Your task to perform on an android device: open app "Lyft - Rideshare, Bikes, Scooters & Transit" (install if not already installed) Image 0: 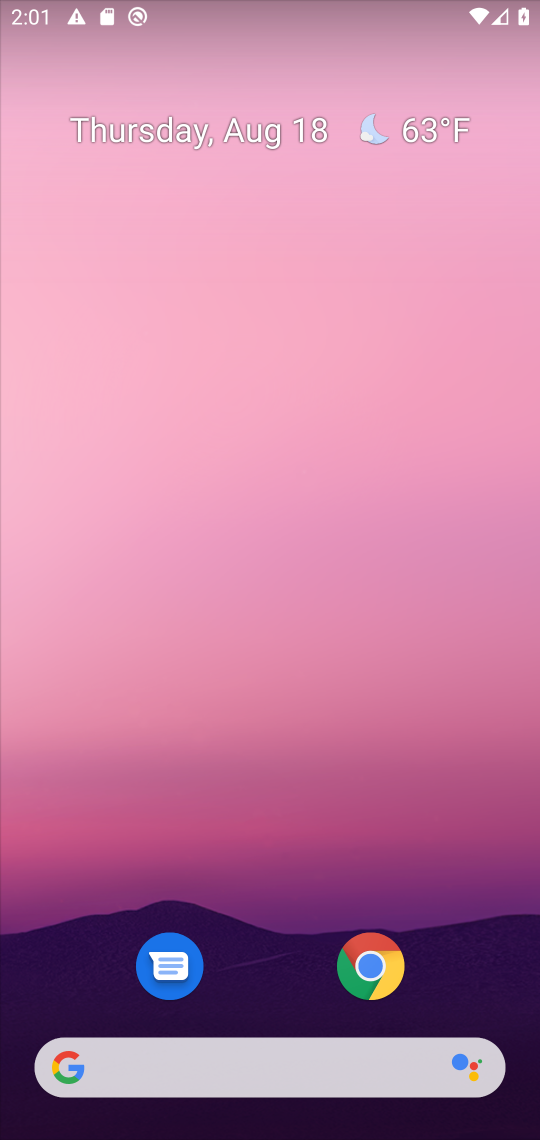
Step 0: press home button
Your task to perform on an android device: open app "Lyft - Rideshare, Bikes, Scooters & Transit" (install if not already installed) Image 1: 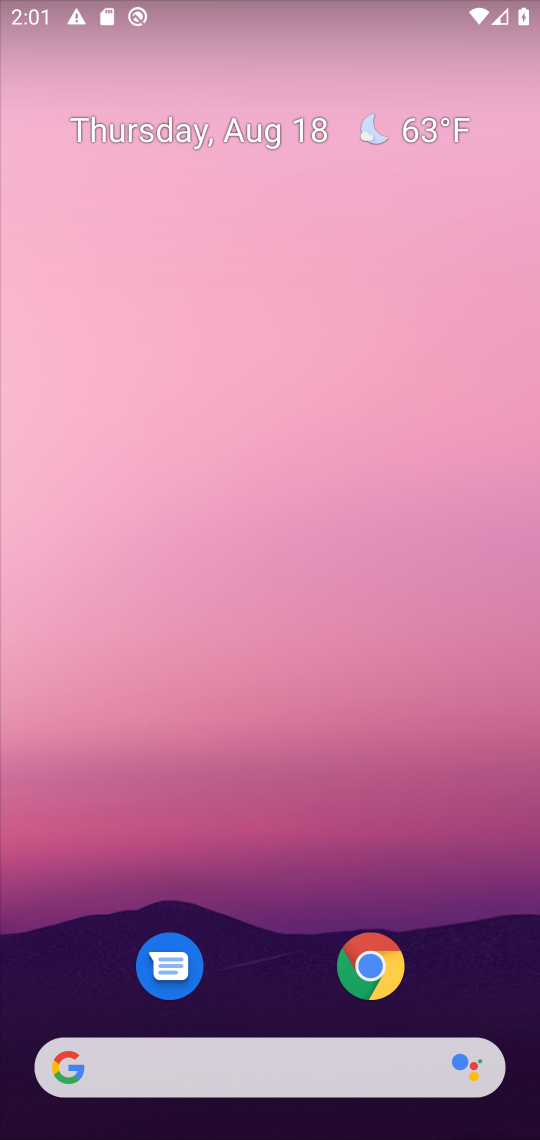
Step 1: drag from (276, 1011) to (281, 312)
Your task to perform on an android device: open app "Lyft - Rideshare, Bikes, Scooters & Transit" (install if not already installed) Image 2: 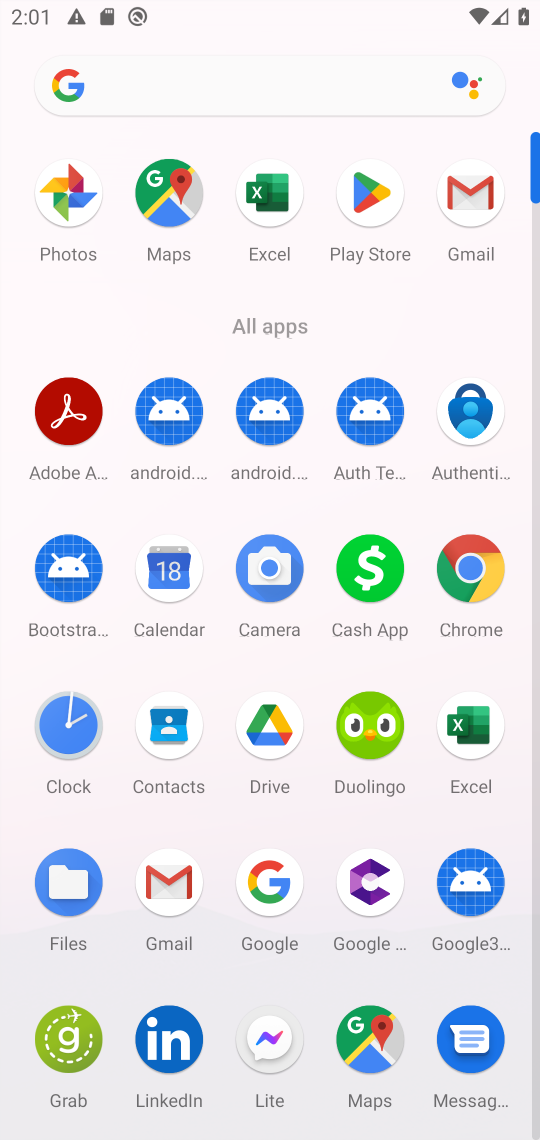
Step 2: click (371, 175)
Your task to perform on an android device: open app "Lyft - Rideshare, Bikes, Scooters & Transit" (install if not already installed) Image 3: 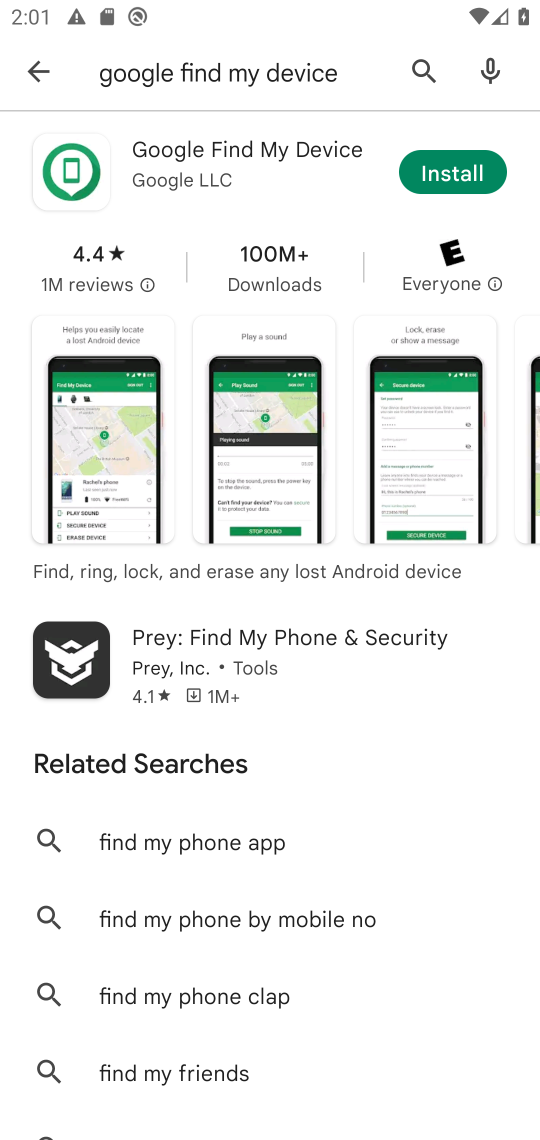
Step 3: click (419, 63)
Your task to perform on an android device: open app "Lyft - Rideshare, Bikes, Scooters & Transit" (install if not already installed) Image 4: 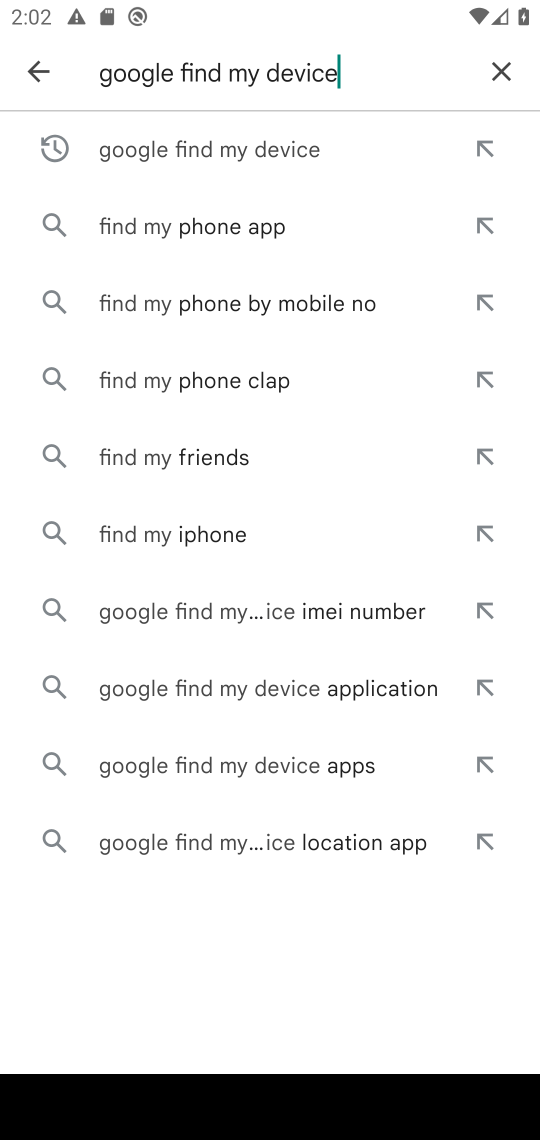
Step 4: click (510, 74)
Your task to perform on an android device: open app "Lyft - Rideshare, Bikes, Scooters & Transit" (install if not already installed) Image 5: 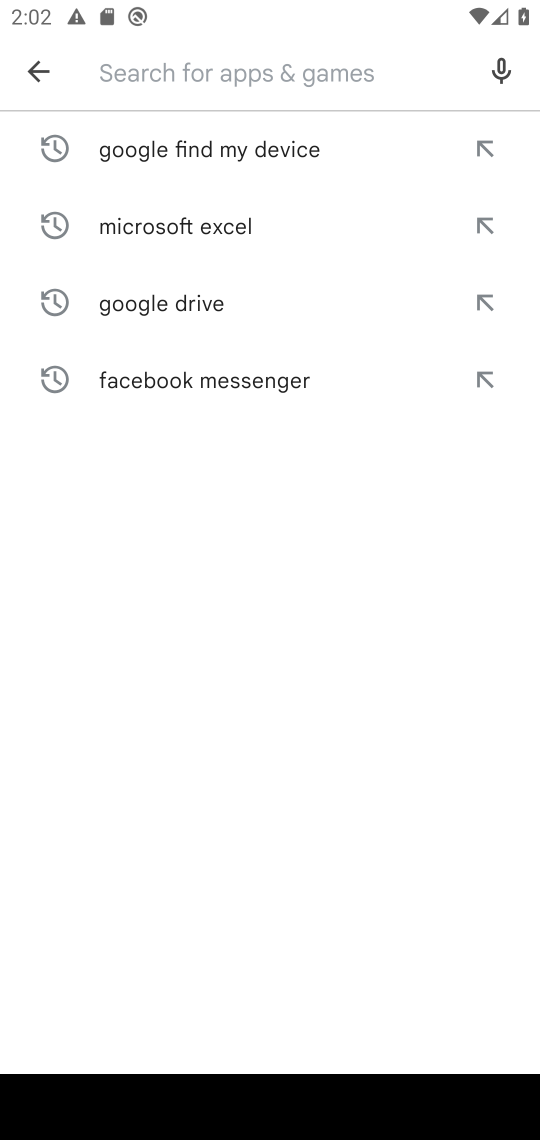
Step 5: type "Lyft - Rideshare, Bikes, Scooters & Transit"
Your task to perform on an android device: open app "Lyft - Rideshare, Bikes, Scooters & Transit" (install if not already installed) Image 6: 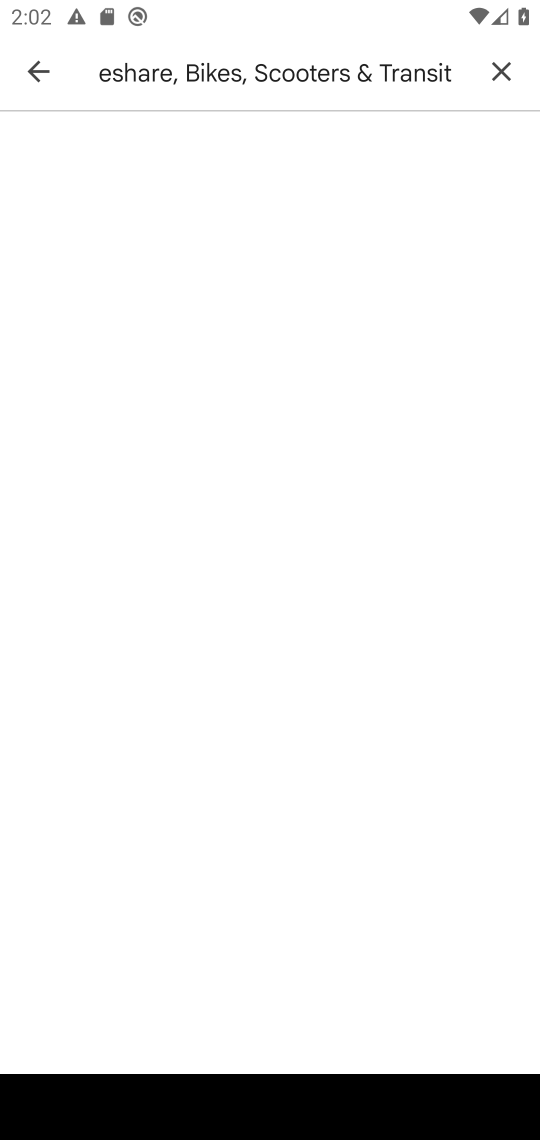
Step 6: task complete